Your task to perform on an android device: Go to Yahoo.com Image 0: 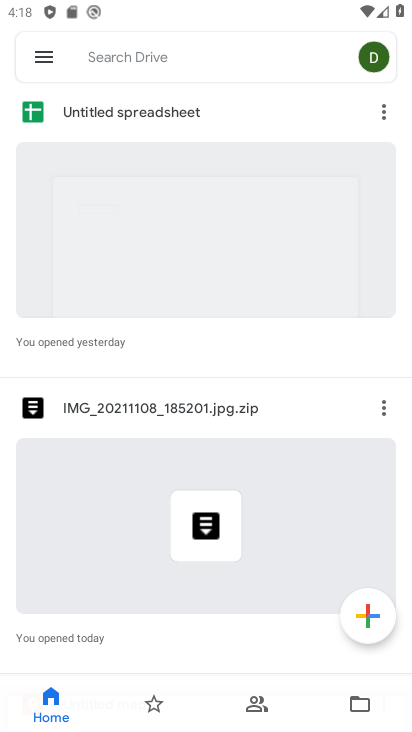
Step 0: press home button
Your task to perform on an android device: Go to Yahoo.com Image 1: 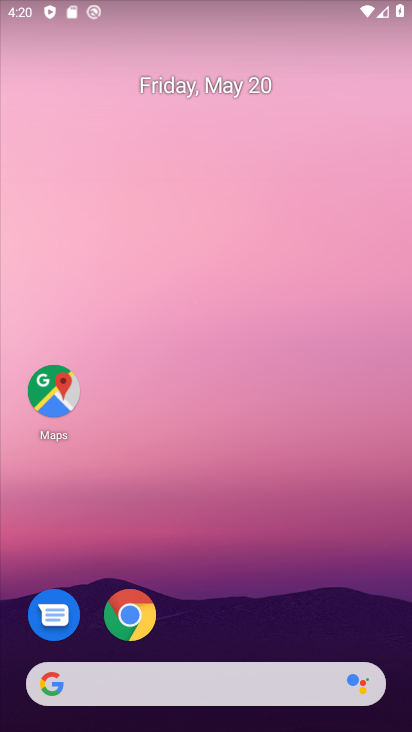
Step 1: click (124, 616)
Your task to perform on an android device: Go to Yahoo.com Image 2: 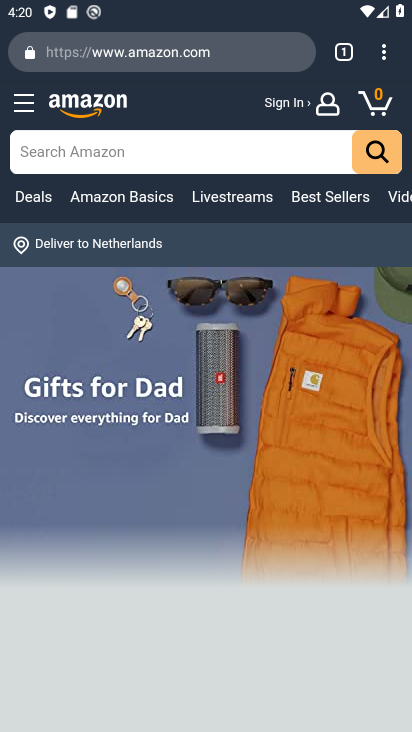
Step 2: click (217, 60)
Your task to perform on an android device: Go to Yahoo.com Image 3: 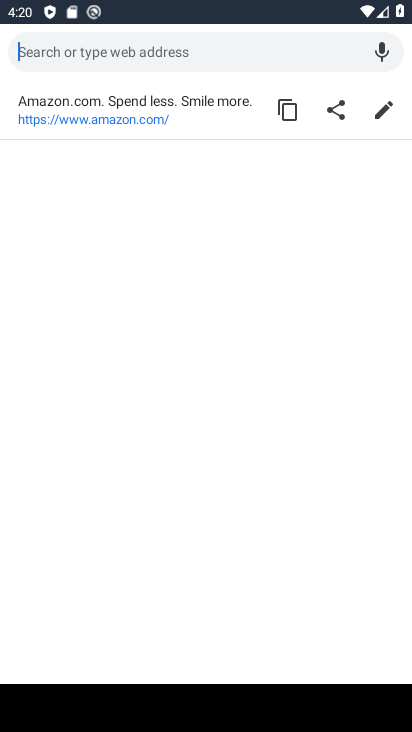
Step 3: type "yahoo"
Your task to perform on an android device: Go to Yahoo.com Image 4: 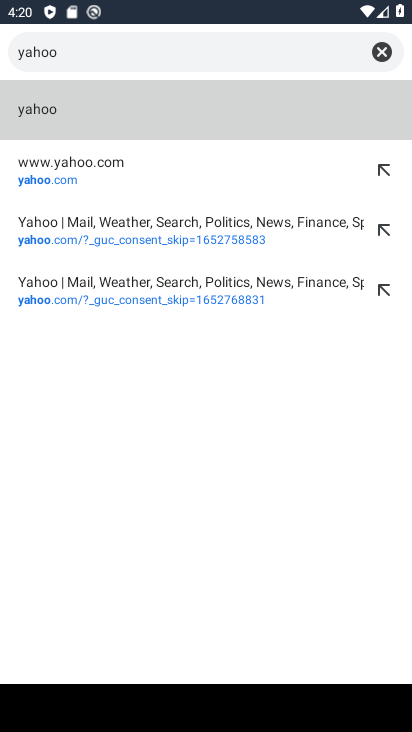
Step 4: click (178, 179)
Your task to perform on an android device: Go to Yahoo.com Image 5: 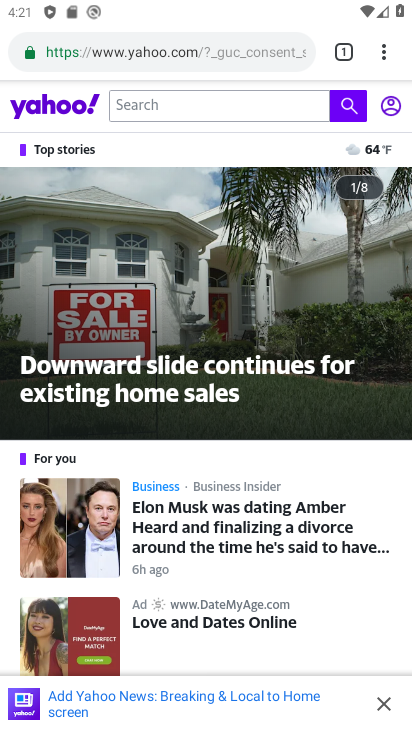
Step 5: task complete